Your task to perform on an android device: Open network settings Image 0: 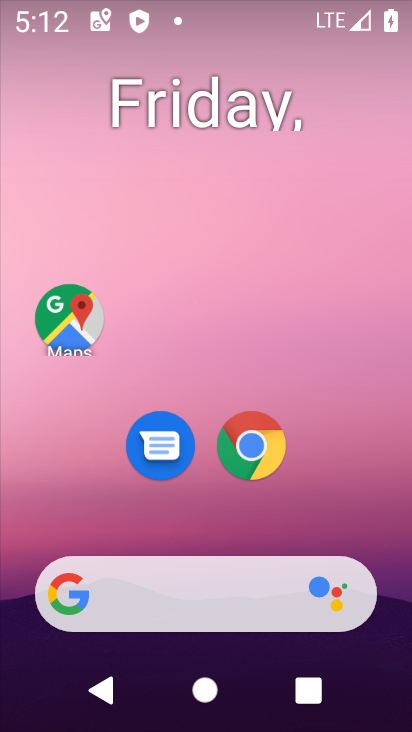
Step 0: drag from (343, 521) to (340, 64)
Your task to perform on an android device: Open network settings Image 1: 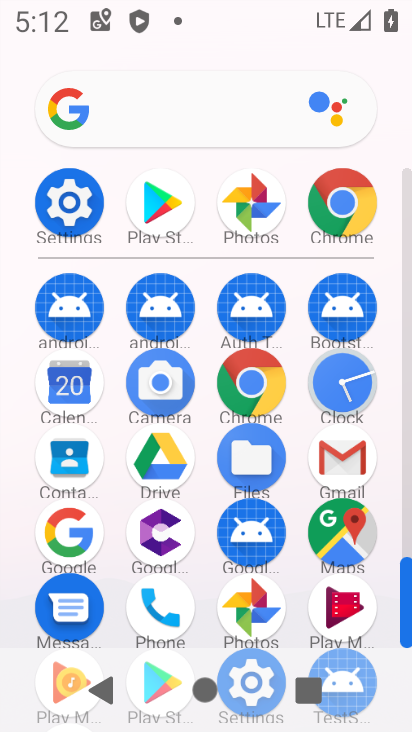
Step 1: click (96, 200)
Your task to perform on an android device: Open network settings Image 2: 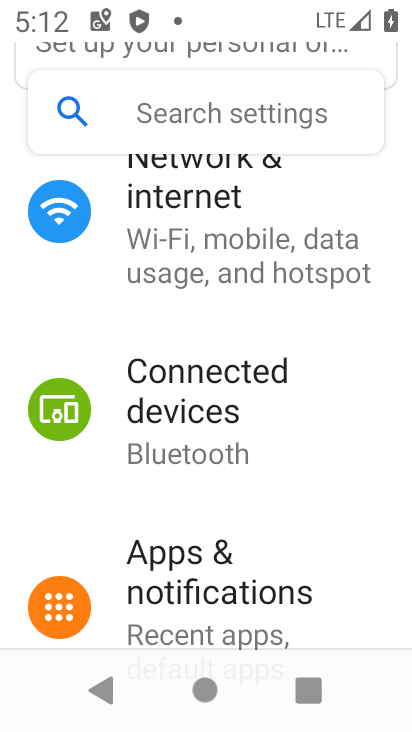
Step 2: click (216, 202)
Your task to perform on an android device: Open network settings Image 3: 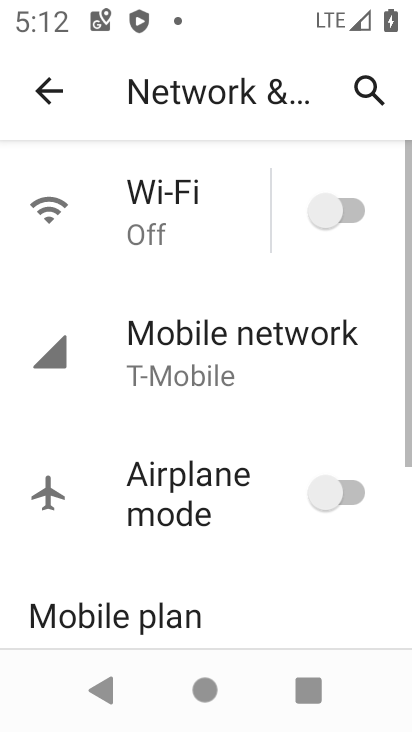
Step 3: task complete